Your task to perform on an android device: Search for Italian restaurants on Maps Image 0: 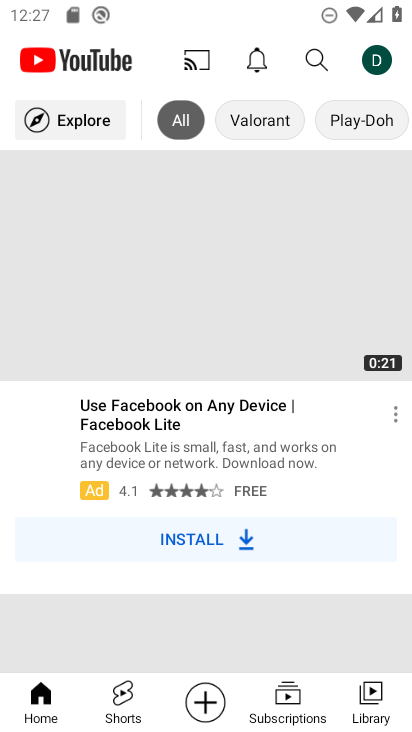
Step 0: press home button
Your task to perform on an android device: Search for Italian restaurants on Maps Image 1: 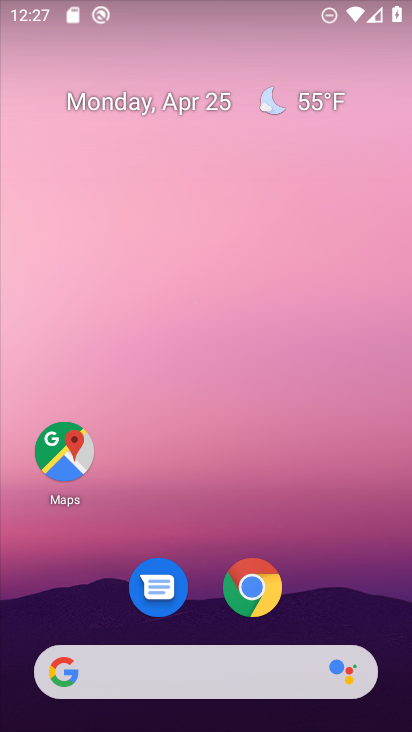
Step 1: drag from (336, 575) to (278, 184)
Your task to perform on an android device: Search for Italian restaurants on Maps Image 2: 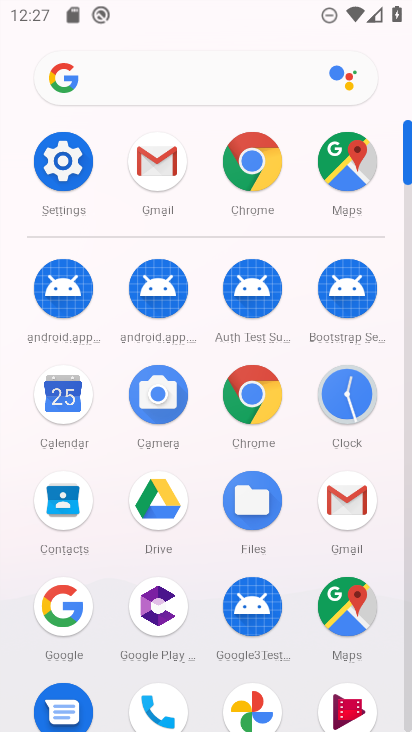
Step 2: click (347, 594)
Your task to perform on an android device: Search for Italian restaurants on Maps Image 3: 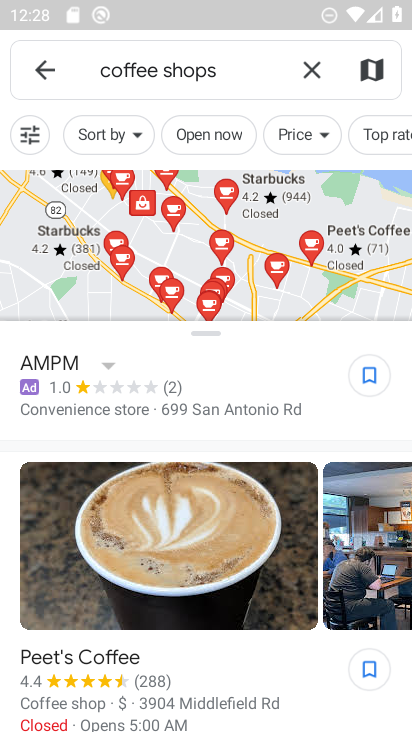
Step 3: click (255, 60)
Your task to perform on an android device: Search for Italian restaurants on Maps Image 4: 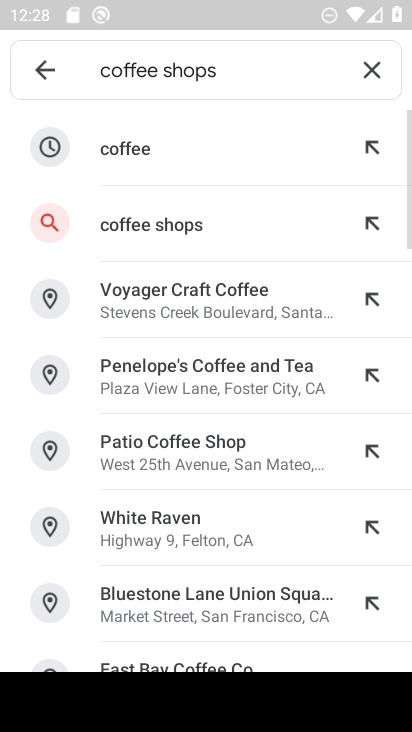
Step 4: click (368, 76)
Your task to perform on an android device: Search for Italian restaurants on Maps Image 5: 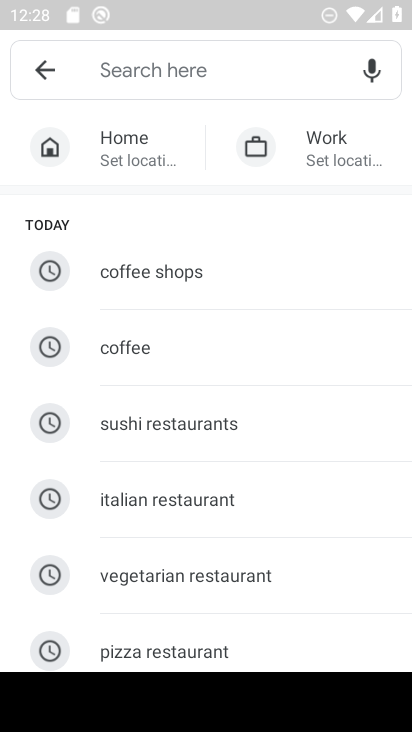
Step 5: type "Italian restaurants"
Your task to perform on an android device: Search for Italian restaurants on Maps Image 6: 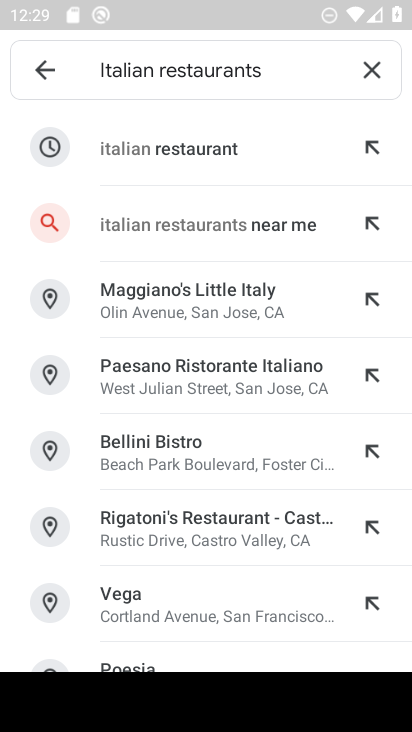
Step 6: press enter
Your task to perform on an android device: Search for Italian restaurants on Maps Image 7: 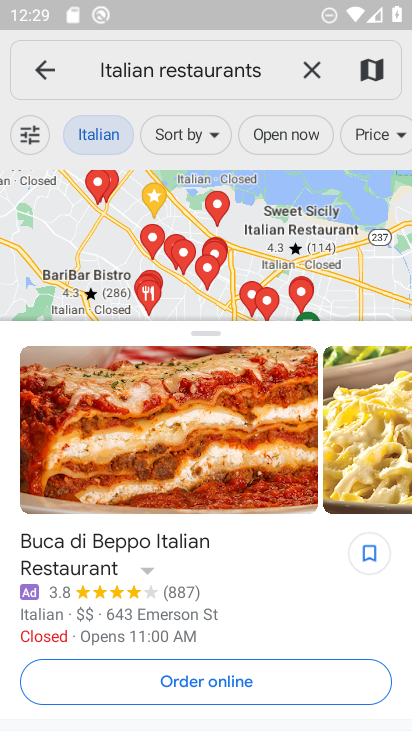
Step 7: task complete